Your task to perform on an android device: check google app version Image 0: 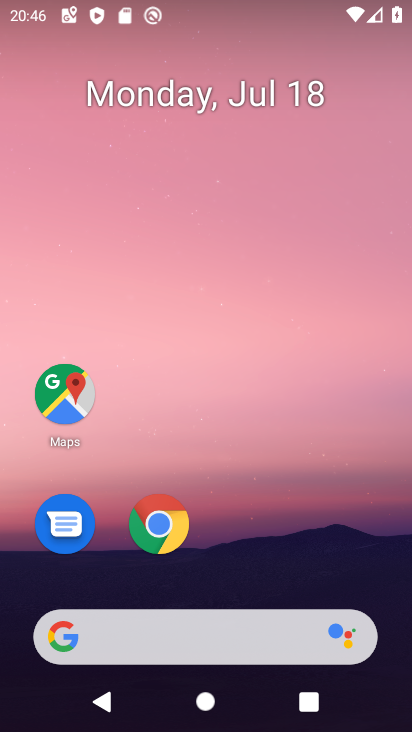
Step 0: click (235, 639)
Your task to perform on an android device: check google app version Image 1: 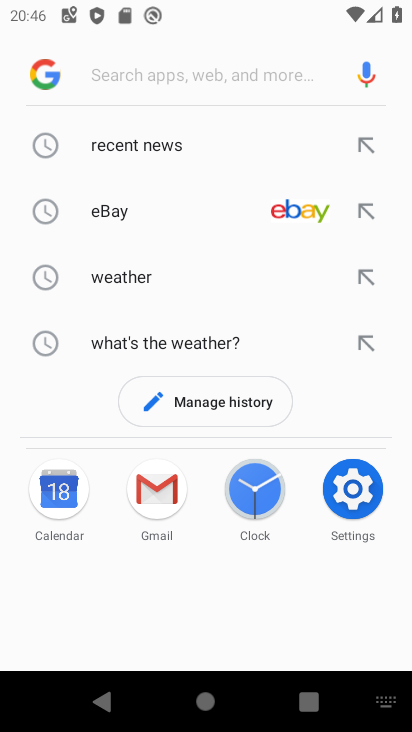
Step 1: click (44, 71)
Your task to perform on an android device: check google app version Image 2: 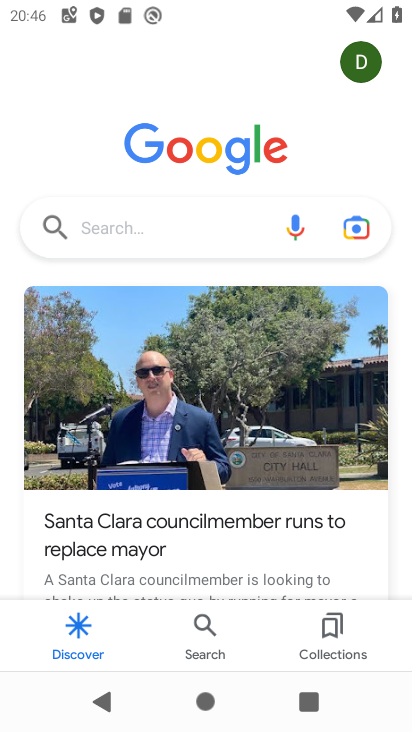
Step 2: click (361, 67)
Your task to perform on an android device: check google app version Image 3: 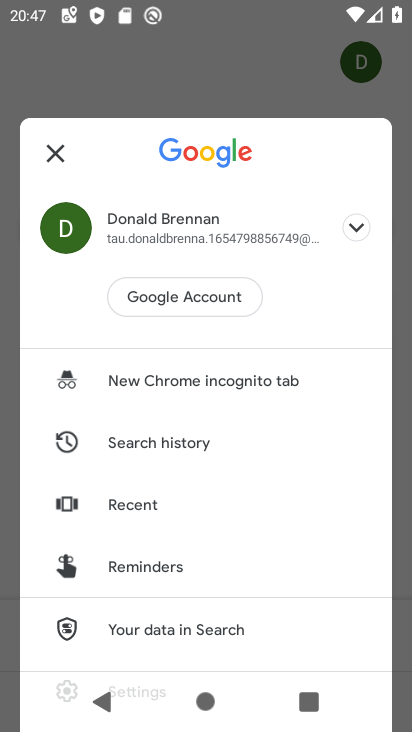
Step 3: drag from (224, 555) to (263, 233)
Your task to perform on an android device: check google app version Image 4: 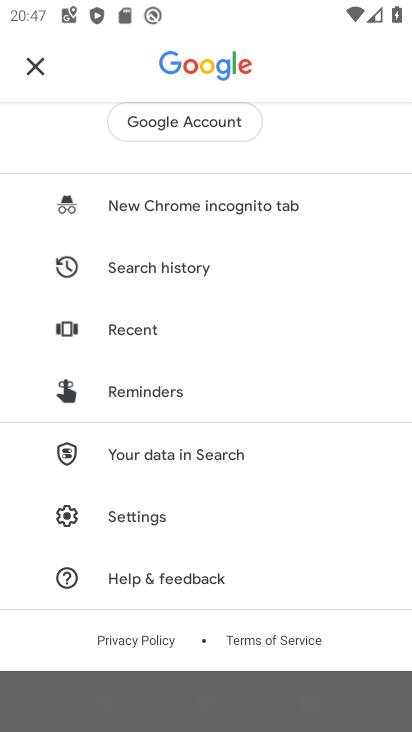
Step 4: click (138, 517)
Your task to perform on an android device: check google app version Image 5: 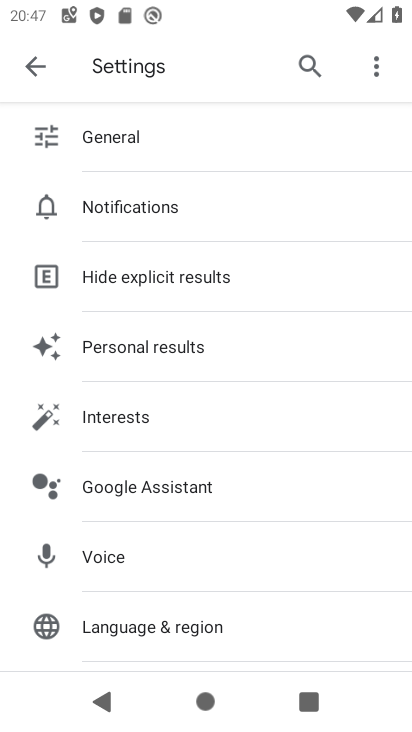
Step 5: drag from (297, 572) to (322, 351)
Your task to perform on an android device: check google app version Image 6: 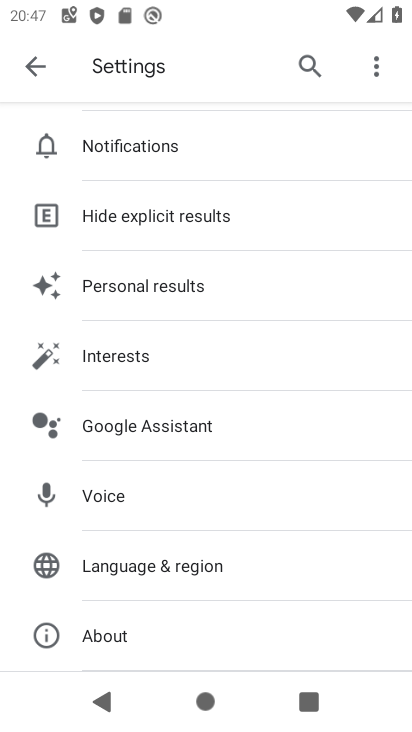
Step 6: click (112, 635)
Your task to perform on an android device: check google app version Image 7: 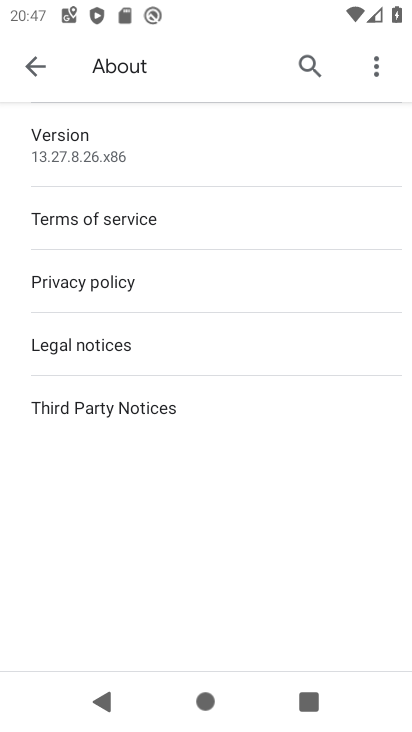
Step 7: task complete